Your task to perform on an android device: Search for Italian restaurants on Maps Image 0: 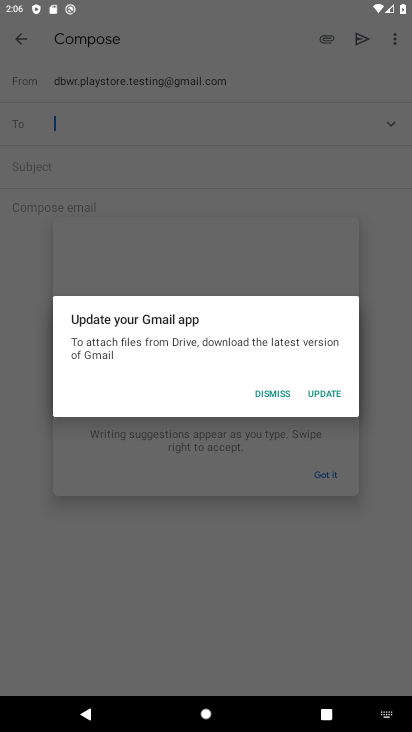
Step 0: press home button
Your task to perform on an android device: Search for Italian restaurants on Maps Image 1: 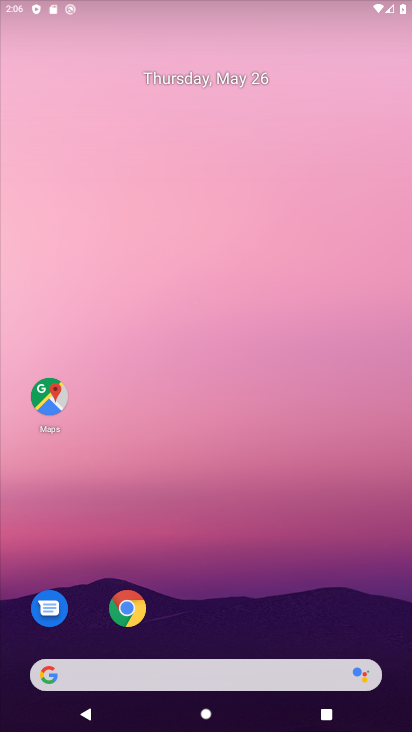
Step 1: drag from (327, 527) to (370, 3)
Your task to perform on an android device: Search for Italian restaurants on Maps Image 2: 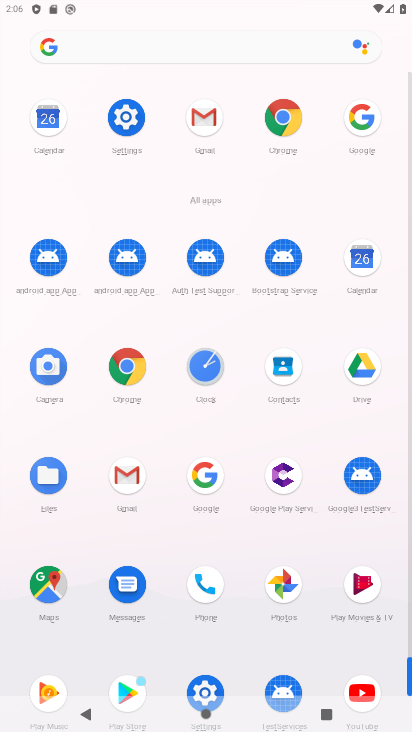
Step 2: click (43, 589)
Your task to perform on an android device: Search for Italian restaurants on Maps Image 3: 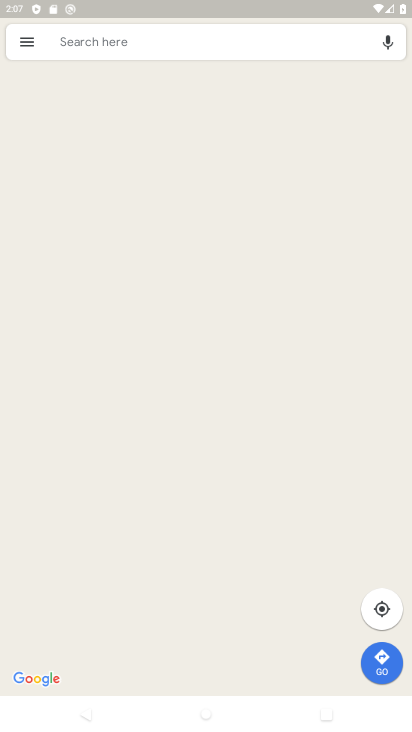
Step 3: click (154, 40)
Your task to perform on an android device: Search for Italian restaurants on Maps Image 4: 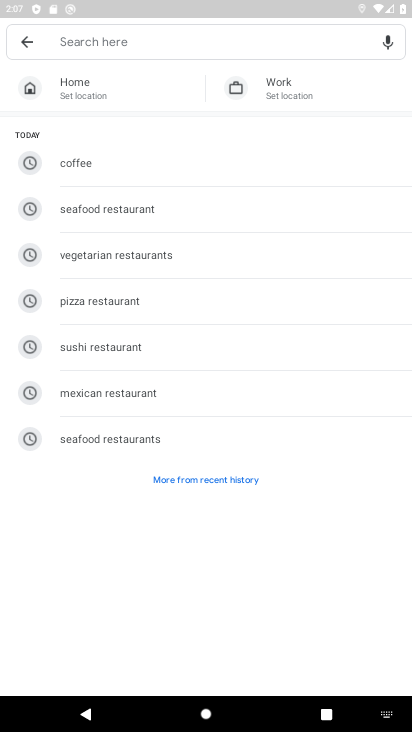
Step 4: type "italian resturents"
Your task to perform on an android device: Search for Italian restaurants on Maps Image 5: 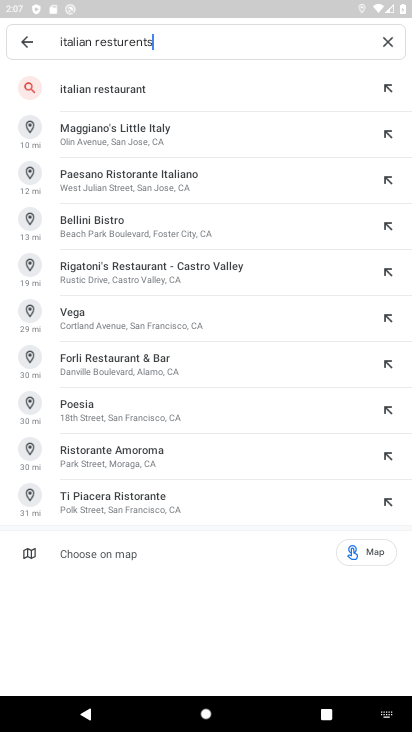
Step 5: click (135, 92)
Your task to perform on an android device: Search for Italian restaurants on Maps Image 6: 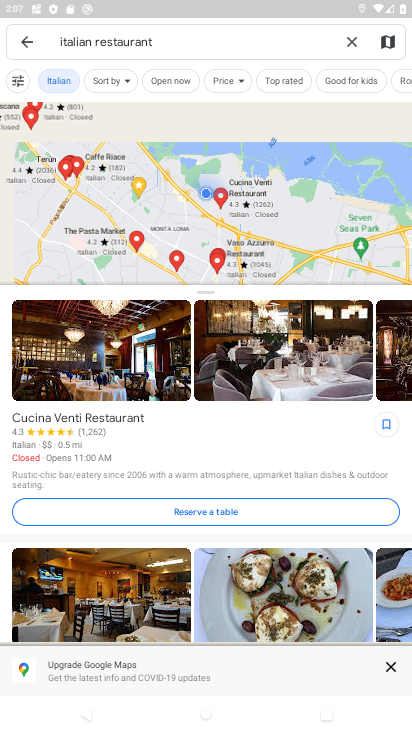
Step 6: task complete